Your task to perform on an android device: Search for sushi restaurants on Maps Image 0: 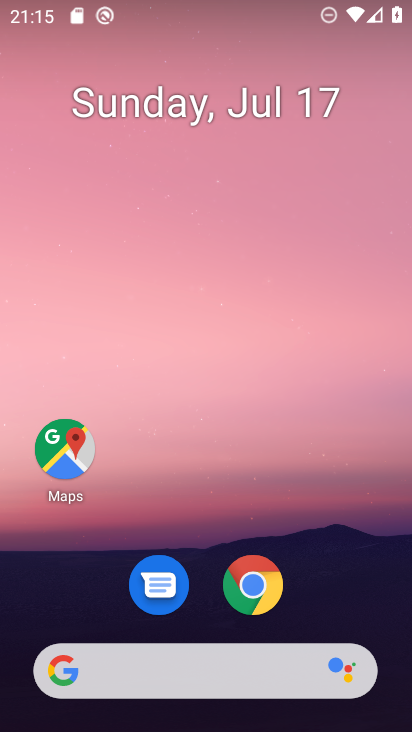
Step 0: click (62, 453)
Your task to perform on an android device: Search for sushi restaurants on Maps Image 1: 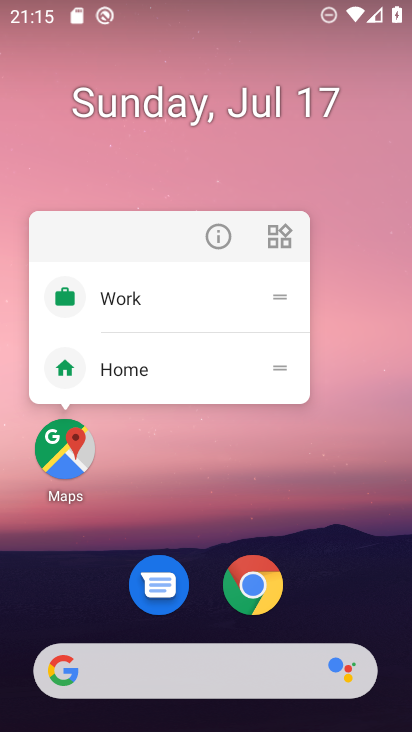
Step 1: click (62, 452)
Your task to perform on an android device: Search for sushi restaurants on Maps Image 2: 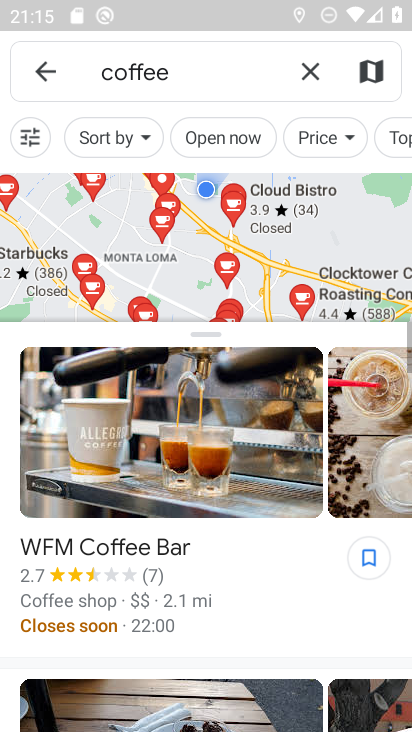
Step 2: click (308, 65)
Your task to perform on an android device: Search for sushi restaurants on Maps Image 3: 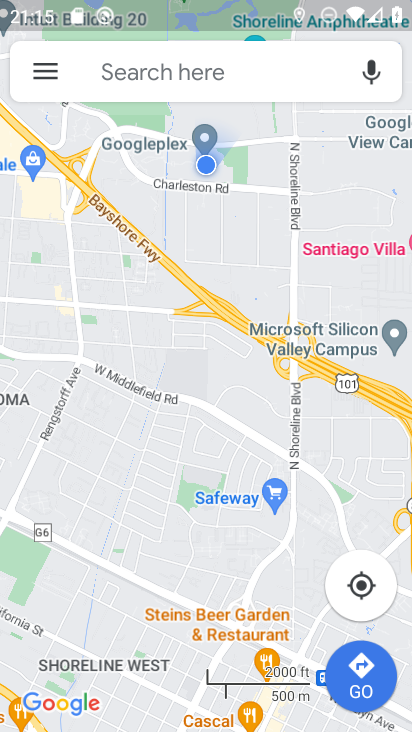
Step 3: click (138, 81)
Your task to perform on an android device: Search for sushi restaurants on Maps Image 4: 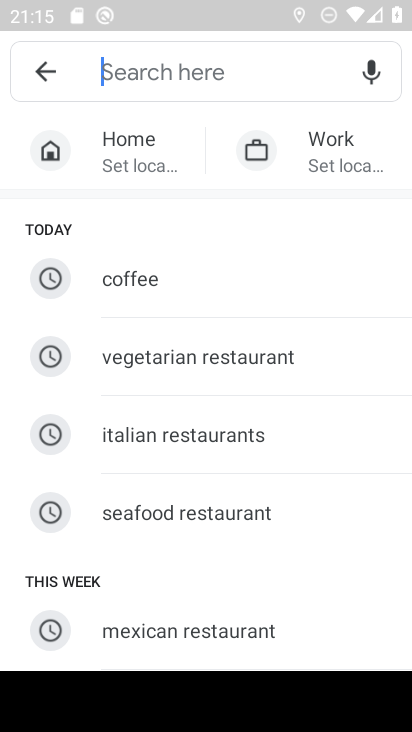
Step 4: drag from (217, 467) to (372, 113)
Your task to perform on an android device: Search for sushi restaurants on Maps Image 5: 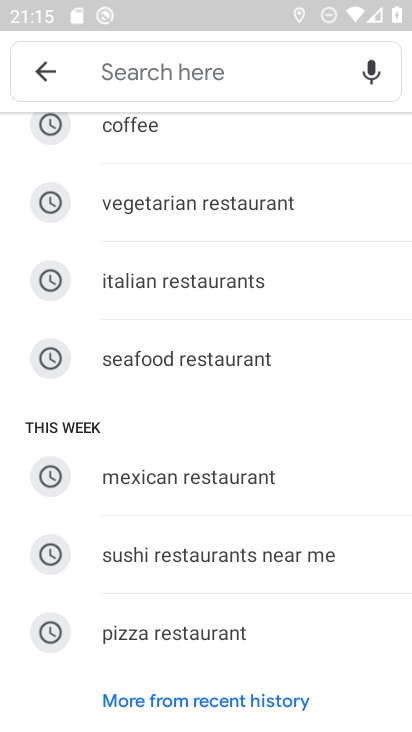
Step 5: click (213, 551)
Your task to perform on an android device: Search for sushi restaurants on Maps Image 6: 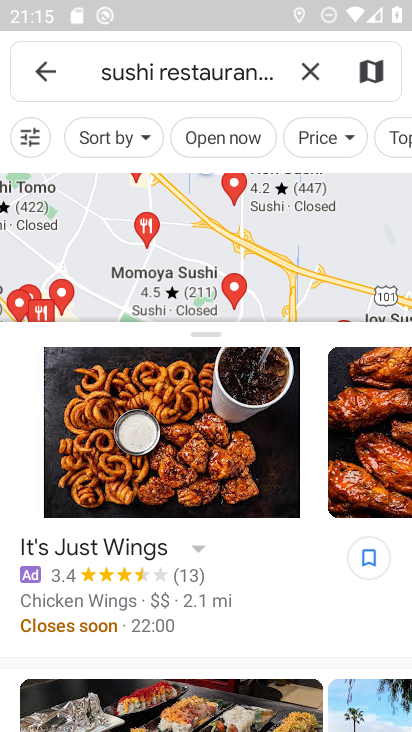
Step 6: task complete